Your task to perform on an android device: add a contact in the contacts app Image 0: 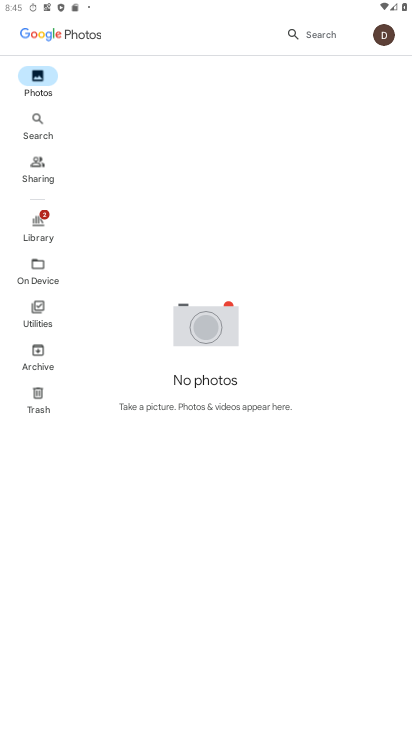
Step 0: press home button
Your task to perform on an android device: add a contact in the contacts app Image 1: 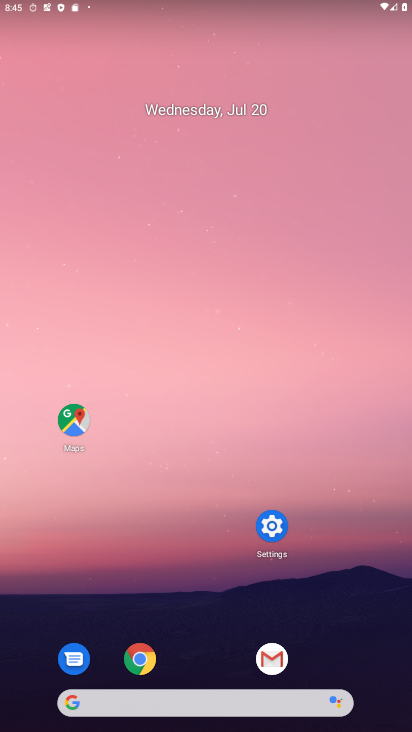
Step 1: drag from (251, 714) to (207, 169)
Your task to perform on an android device: add a contact in the contacts app Image 2: 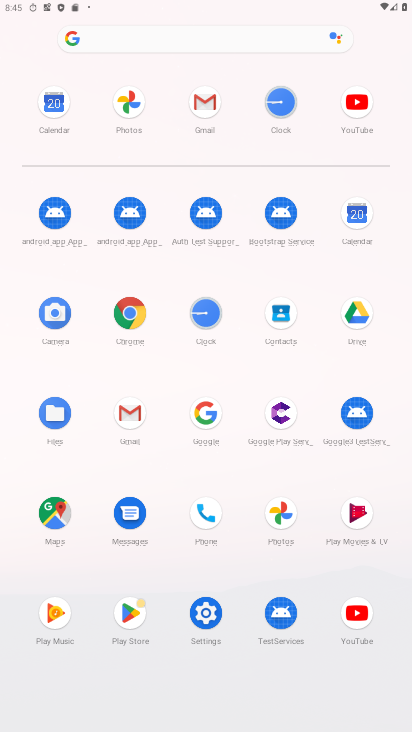
Step 2: click (203, 519)
Your task to perform on an android device: add a contact in the contacts app Image 3: 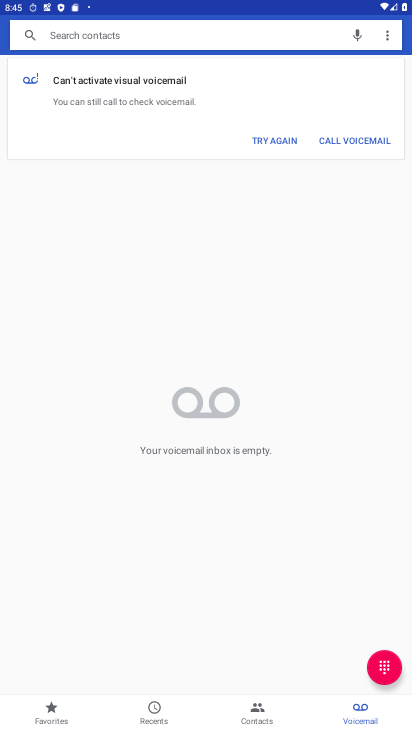
Step 3: click (270, 712)
Your task to perform on an android device: add a contact in the contacts app Image 4: 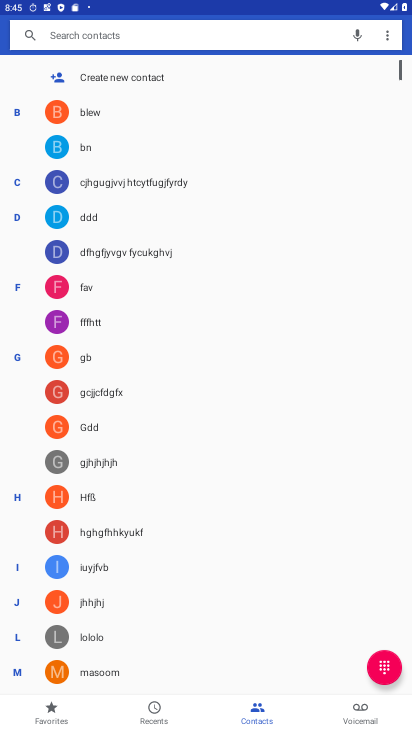
Step 4: click (107, 75)
Your task to perform on an android device: add a contact in the contacts app Image 5: 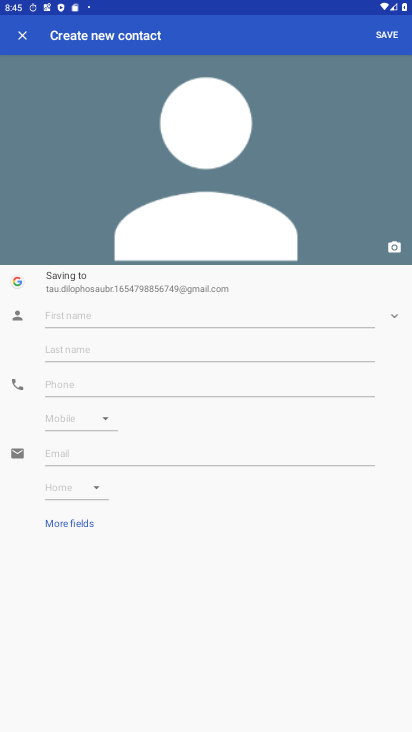
Step 5: click (84, 325)
Your task to perform on an android device: add a contact in the contacts app Image 6: 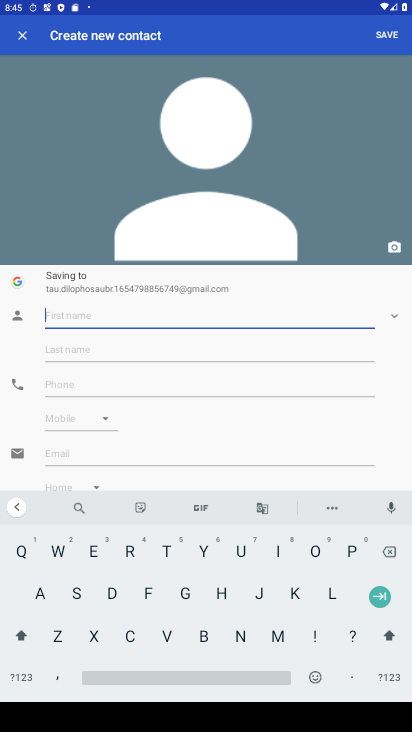
Step 6: click (139, 556)
Your task to perform on an android device: add a contact in the contacts app Image 7: 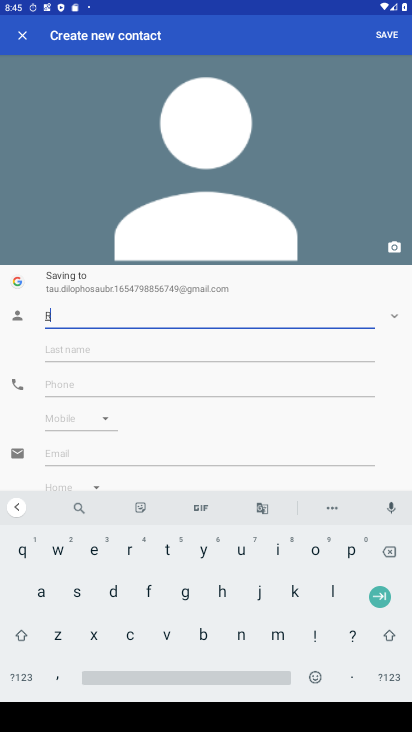
Step 7: click (183, 592)
Your task to perform on an android device: add a contact in the contacts app Image 8: 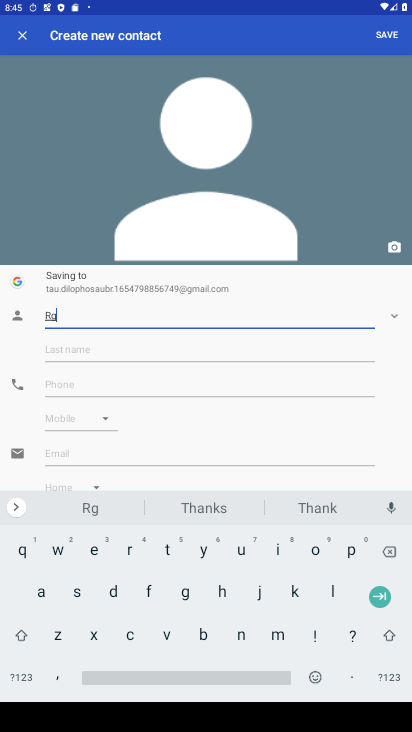
Step 8: click (221, 630)
Your task to perform on an android device: add a contact in the contacts app Image 9: 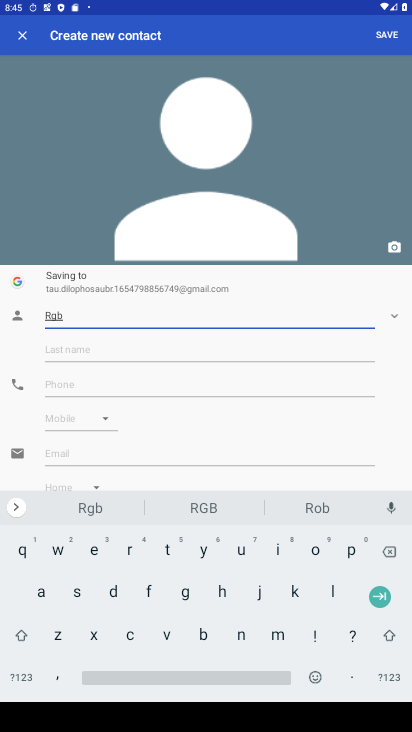
Step 9: click (60, 382)
Your task to perform on an android device: add a contact in the contacts app Image 10: 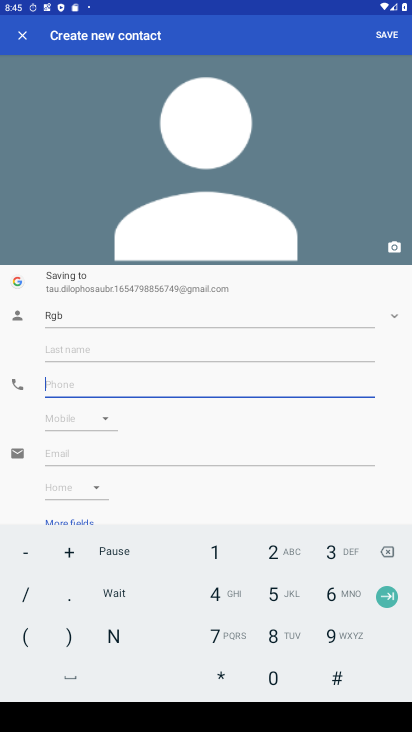
Step 10: click (226, 590)
Your task to perform on an android device: add a contact in the contacts app Image 11: 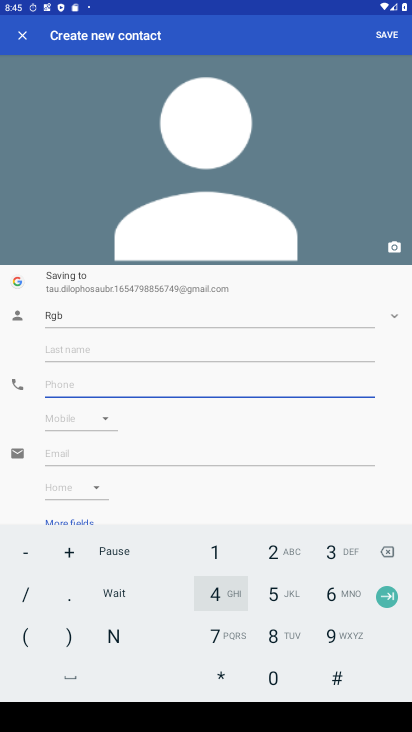
Step 11: click (243, 591)
Your task to perform on an android device: add a contact in the contacts app Image 12: 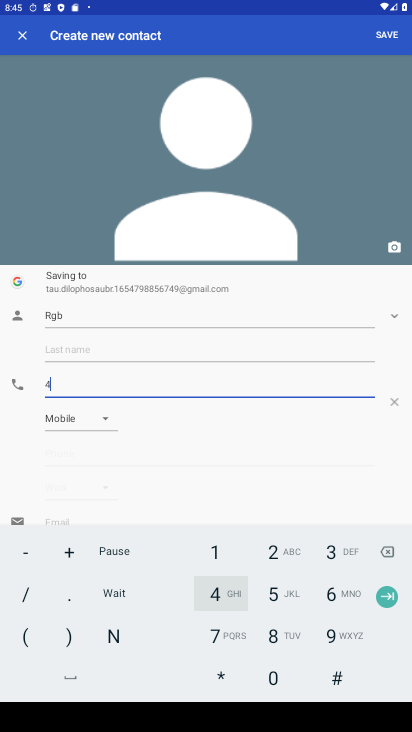
Step 12: click (270, 633)
Your task to perform on an android device: add a contact in the contacts app Image 13: 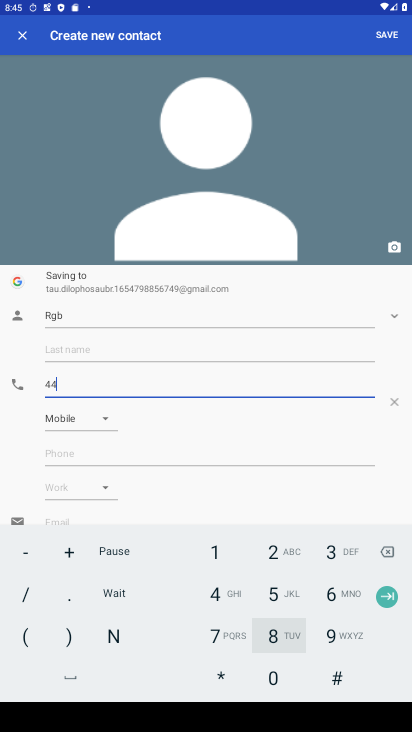
Step 13: click (296, 604)
Your task to perform on an android device: add a contact in the contacts app Image 14: 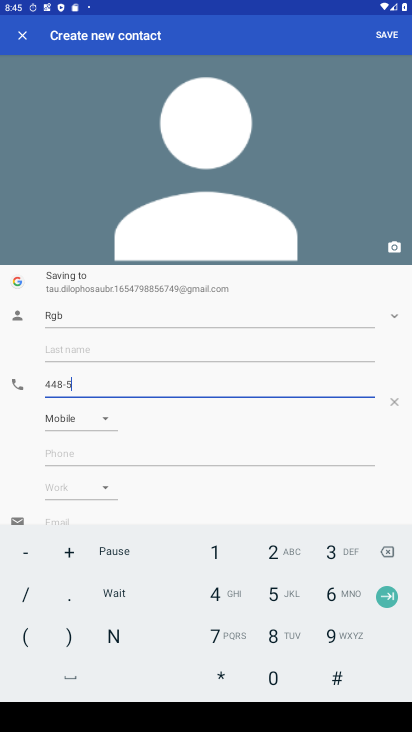
Step 14: click (318, 593)
Your task to perform on an android device: add a contact in the contacts app Image 15: 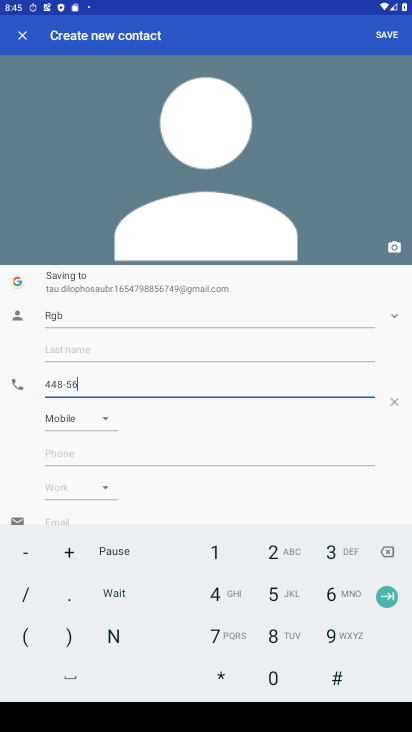
Step 15: click (326, 550)
Your task to perform on an android device: add a contact in the contacts app Image 16: 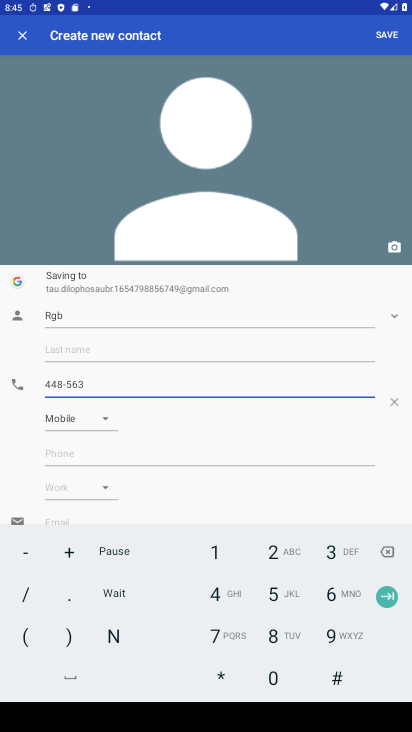
Step 16: click (395, 36)
Your task to perform on an android device: add a contact in the contacts app Image 17: 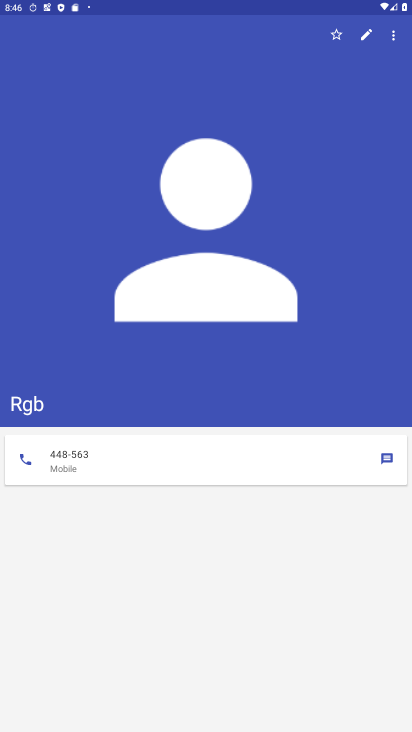
Step 17: task complete